Your task to perform on an android device: turn on the 12-hour format for clock Image 0: 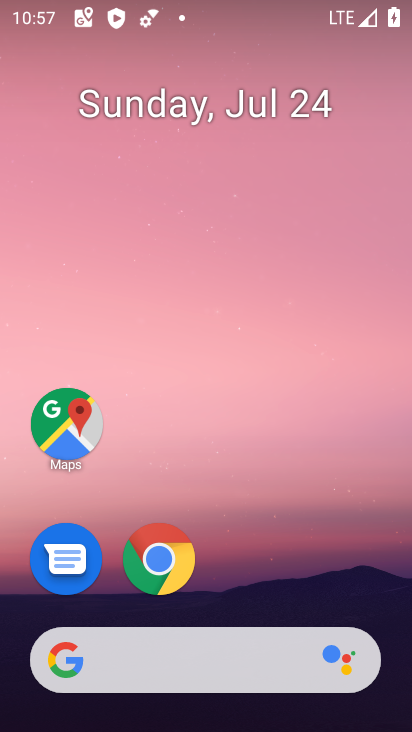
Step 0: drag from (256, 546) to (295, 3)
Your task to perform on an android device: turn on the 12-hour format for clock Image 1: 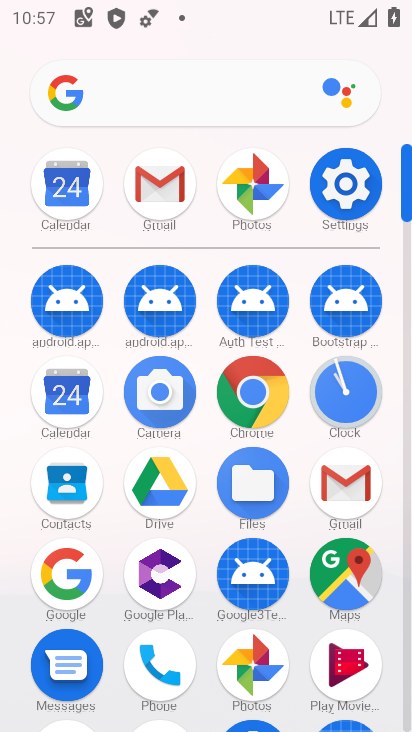
Step 1: click (354, 395)
Your task to perform on an android device: turn on the 12-hour format for clock Image 2: 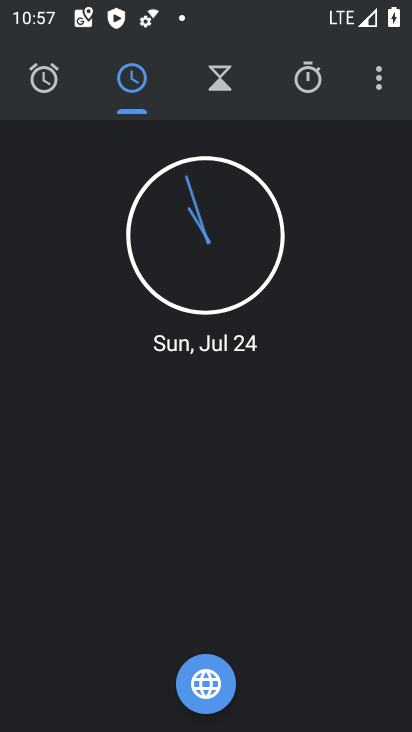
Step 2: click (375, 77)
Your task to perform on an android device: turn on the 12-hour format for clock Image 3: 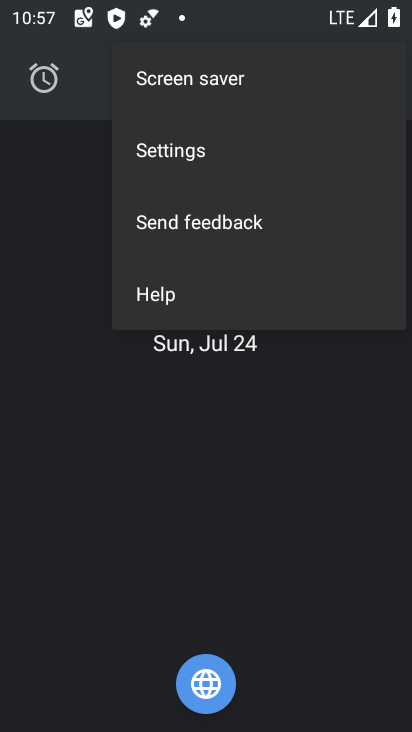
Step 3: click (203, 157)
Your task to perform on an android device: turn on the 12-hour format for clock Image 4: 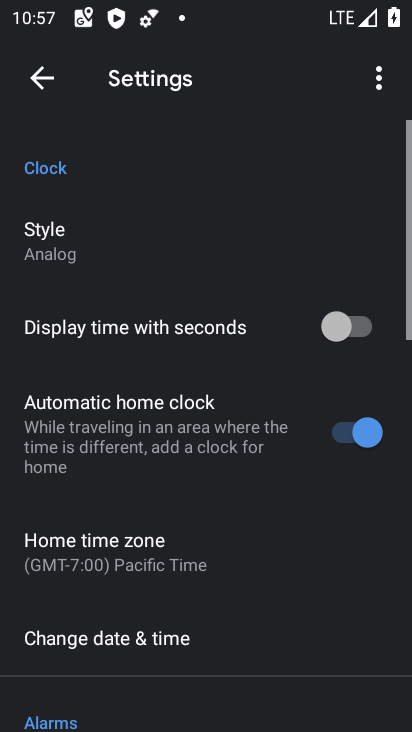
Step 4: click (130, 633)
Your task to perform on an android device: turn on the 12-hour format for clock Image 5: 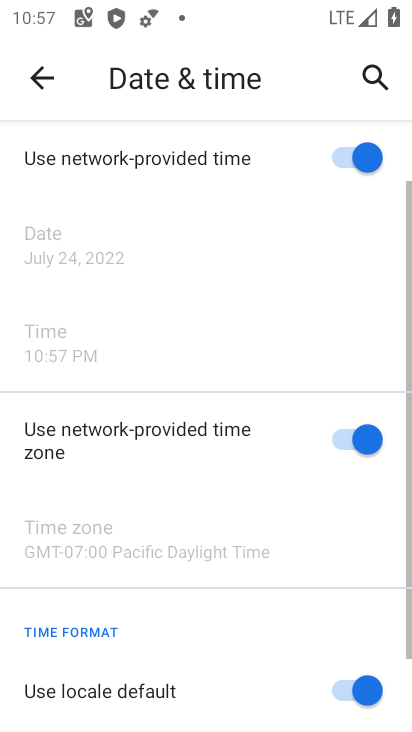
Step 5: task complete